Your task to perform on an android device: turn pop-ups off in chrome Image 0: 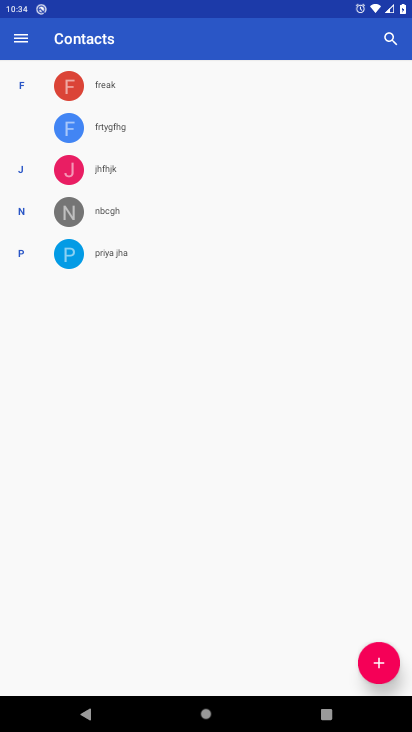
Step 0: press home button
Your task to perform on an android device: turn pop-ups off in chrome Image 1: 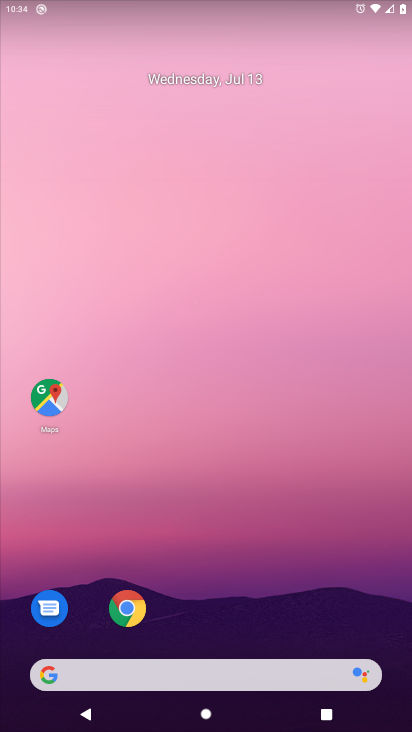
Step 1: click (135, 595)
Your task to perform on an android device: turn pop-ups off in chrome Image 2: 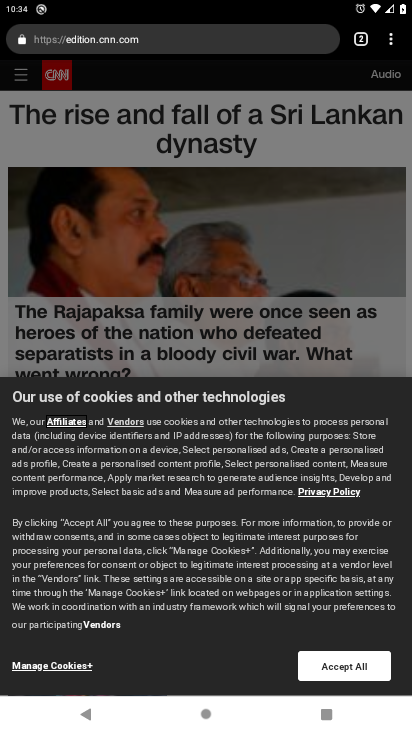
Step 2: click (391, 37)
Your task to perform on an android device: turn pop-ups off in chrome Image 3: 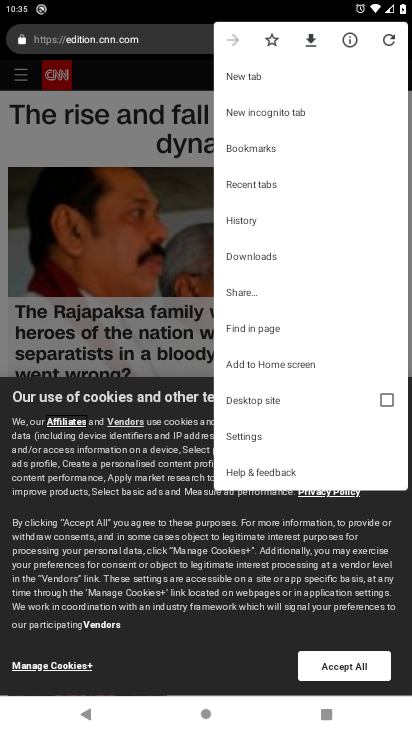
Step 3: click (264, 435)
Your task to perform on an android device: turn pop-ups off in chrome Image 4: 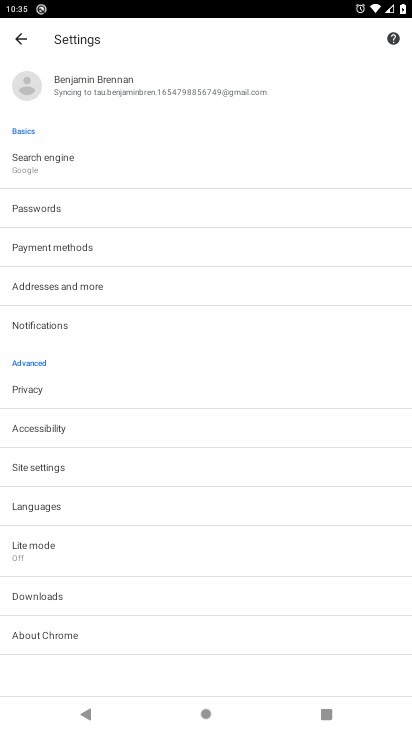
Step 4: click (45, 465)
Your task to perform on an android device: turn pop-ups off in chrome Image 5: 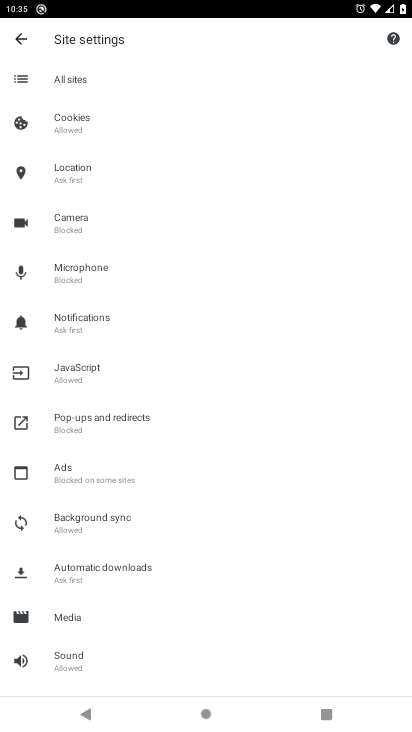
Step 5: click (102, 405)
Your task to perform on an android device: turn pop-ups off in chrome Image 6: 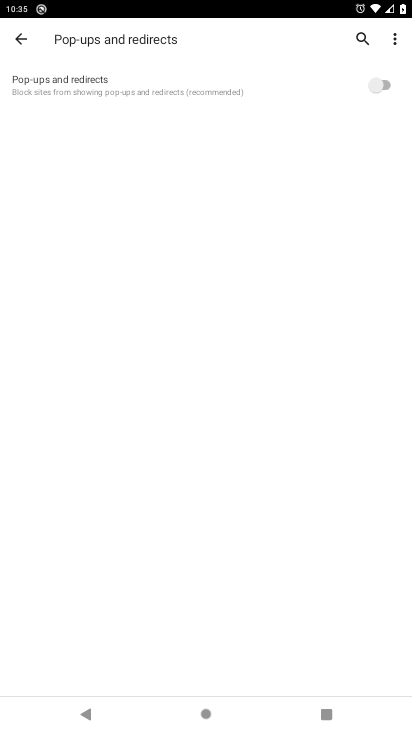
Step 6: task complete